Your task to perform on an android device: Is it going to rain tomorrow? Image 0: 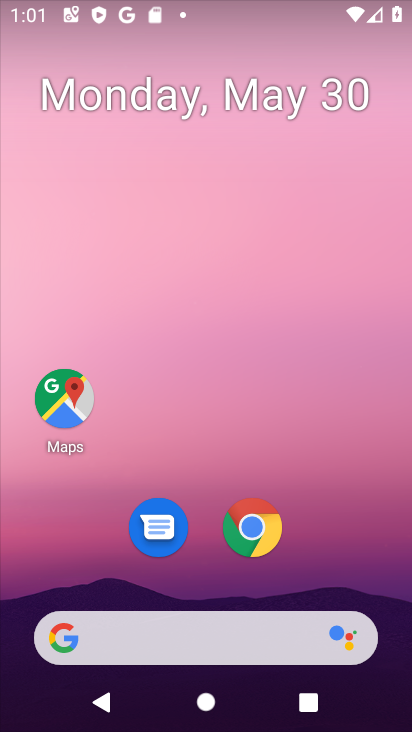
Step 0: drag from (384, 574) to (284, 178)
Your task to perform on an android device: Is it going to rain tomorrow? Image 1: 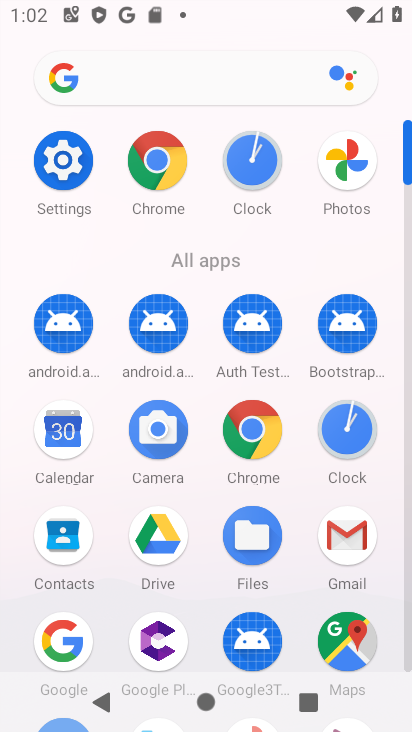
Step 1: click (152, 162)
Your task to perform on an android device: Is it going to rain tomorrow? Image 2: 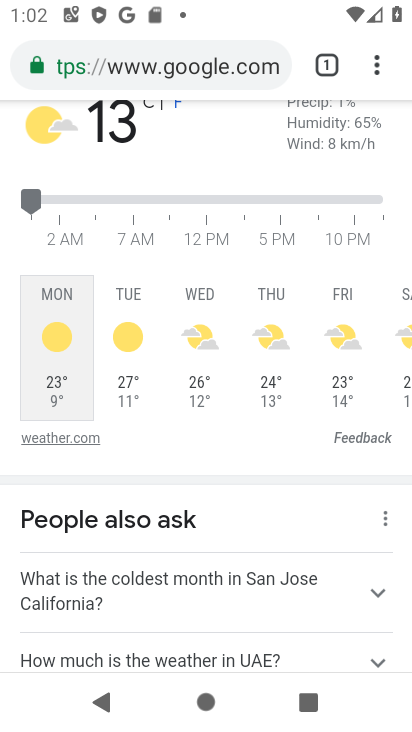
Step 2: click (246, 60)
Your task to perform on an android device: Is it going to rain tomorrow? Image 3: 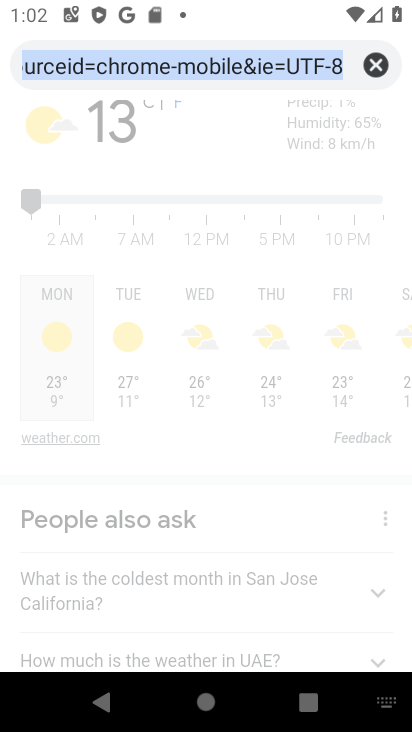
Step 3: type "Is it going to rain tomorrow?"
Your task to perform on an android device: Is it going to rain tomorrow? Image 4: 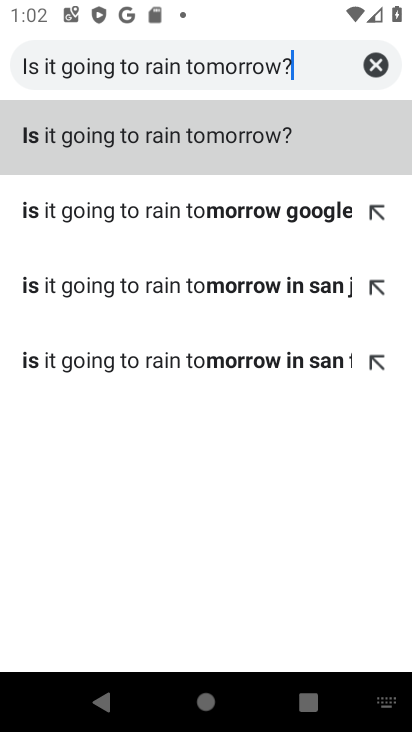
Step 4: click (252, 118)
Your task to perform on an android device: Is it going to rain tomorrow? Image 5: 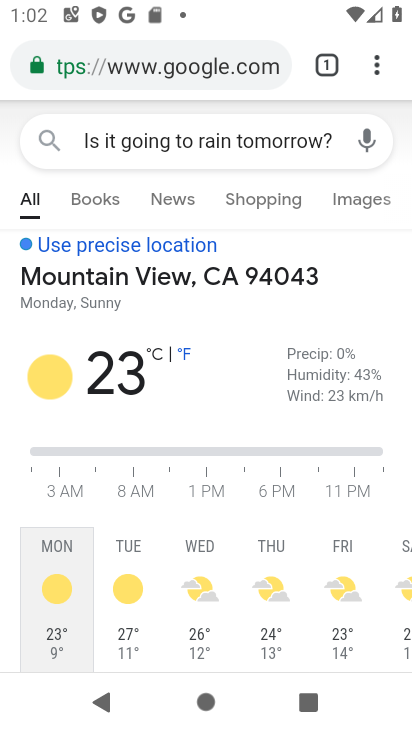
Step 5: click (121, 554)
Your task to perform on an android device: Is it going to rain tomorrow? Image 6: 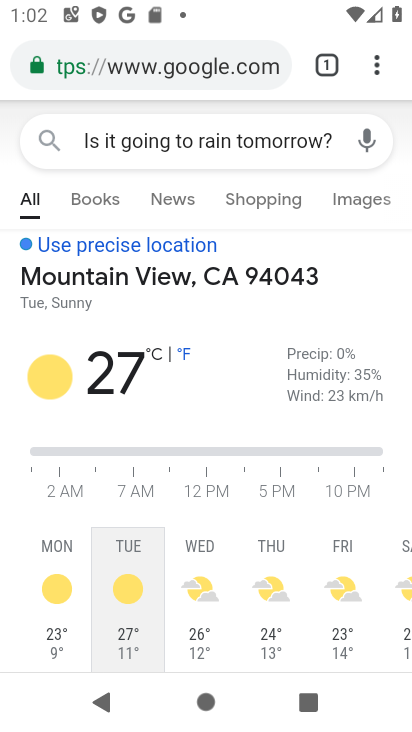
Step 6: task complete